Your task to perform on an android device: set an alarm Image 0: 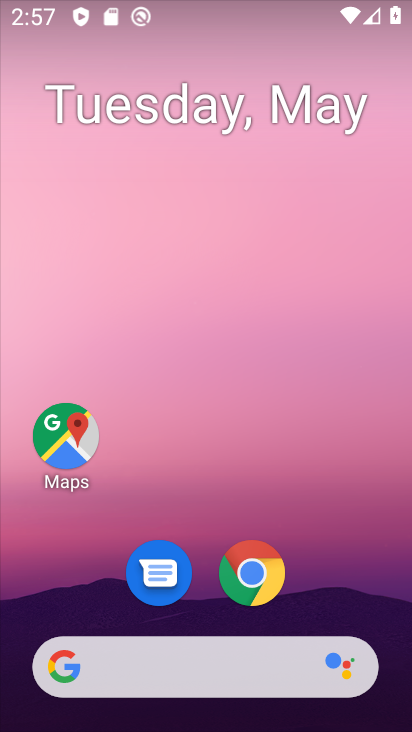
Step 0: drag from (308, 425) to (260, 29)
Your task to perform on an android device: set an alarm Image 1: 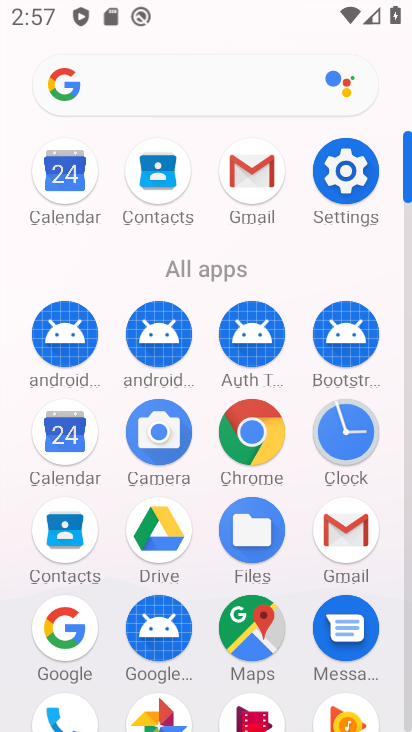
Step 1: drag from (17, 547) to (20, 283)
Your task to perform on an android device: set an alarm Image 2: 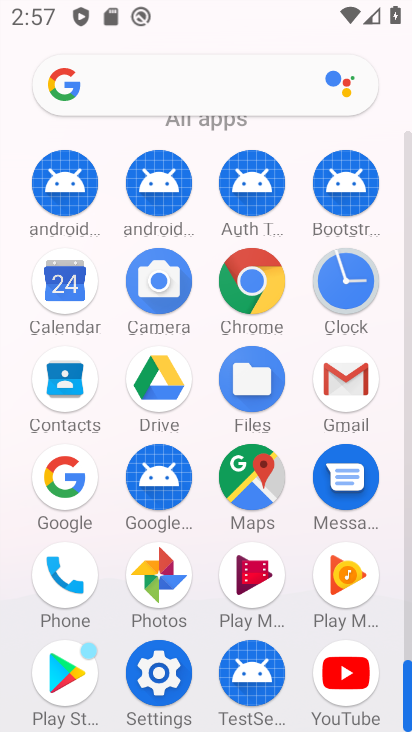
Step 2: click (343, 276)
Your task to perform on an android device: set an alarm Image 3: 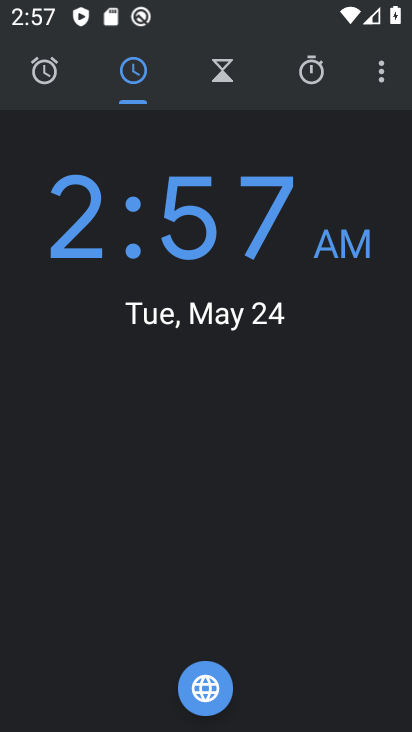
Step 3: click (41, 61)
Your task to perform on an android device: set an alarm Image 4: 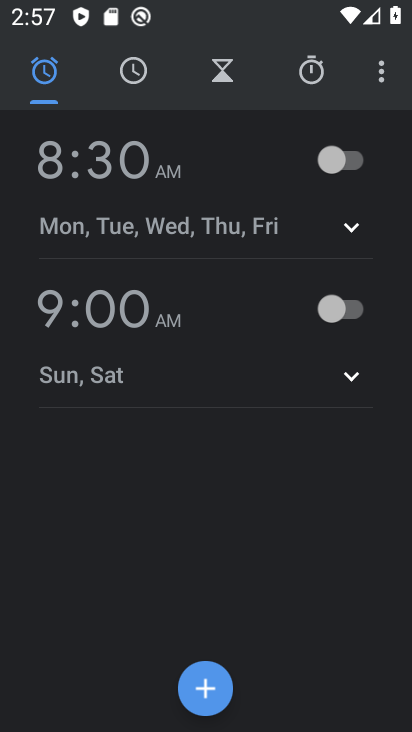
Step 4: click (190, 669)
Your task to perform on an android device: set an alarm Image 5: 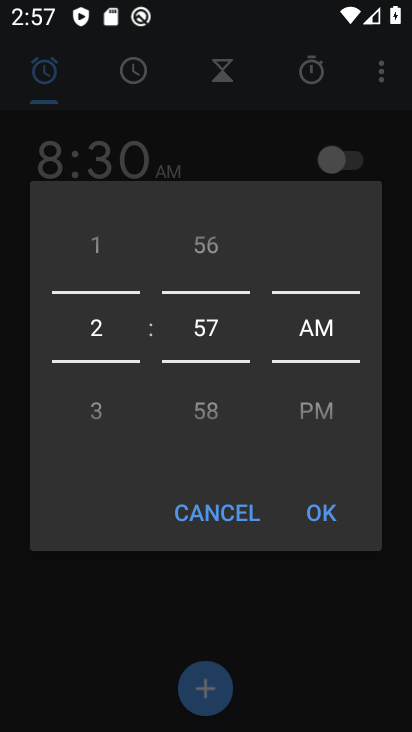
Step 5: drag from (110, 357) to (109, 207)
Your task to perform on an android device: set an alarm Image 6: 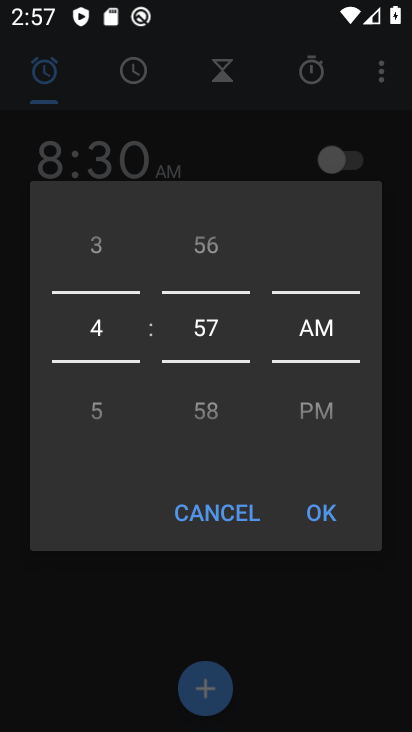
Step 6: drag from (234, 294) to (234, 414)
Your task to perform on an android device: set an alarm Image 7: 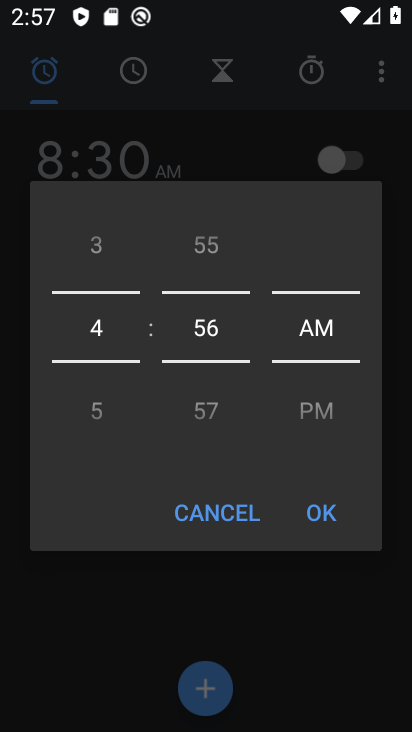
Step 7: click (320, 509)
Your task to perform on an android device: set an alarm Image 8: 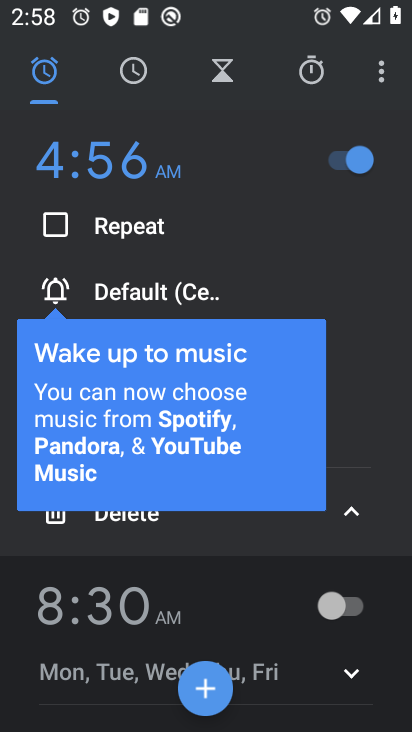
Step 8: task complete